Your task to perform on an android device: uninstall "PUBG MOBILE" Image 0: 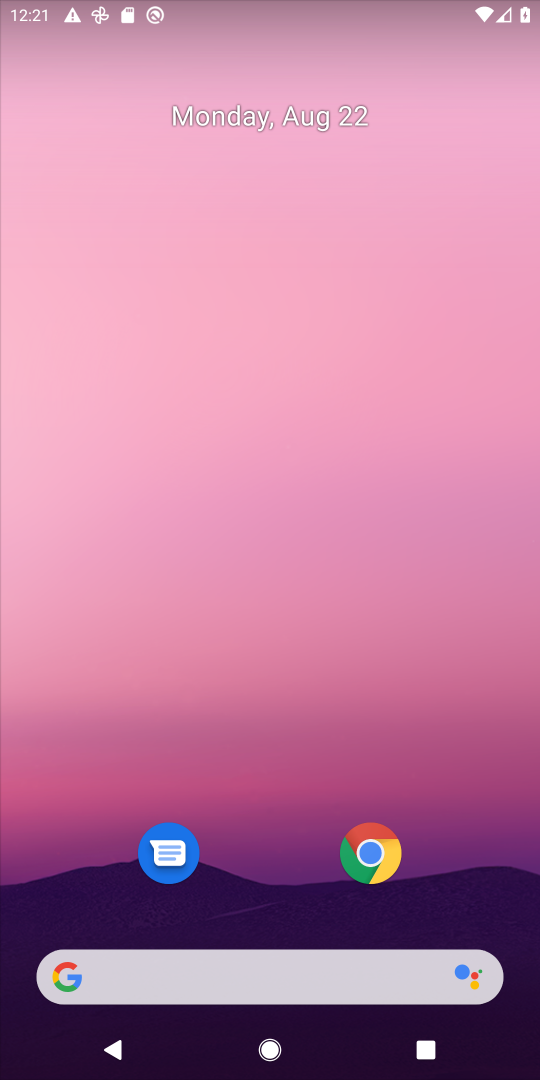
Step 0: drag from (314, 918) to (325, 300)
Your task to perform on an android device: uninstall "PUBG MOBILE" Image 1: 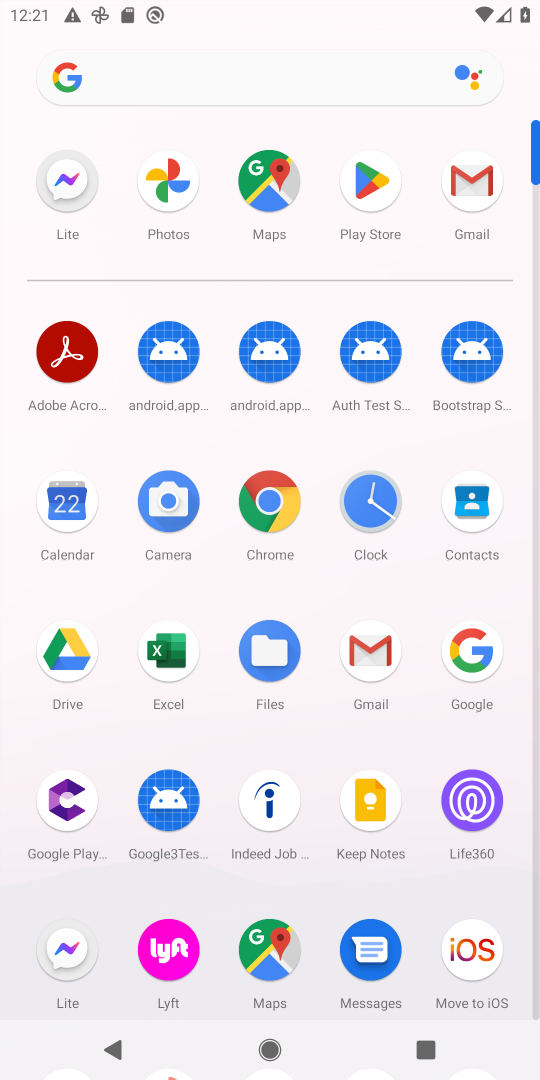
Step 1: click (361, 187)
Your task to perform on an android device: uninstall "PUBG MOBILE" Image 2: 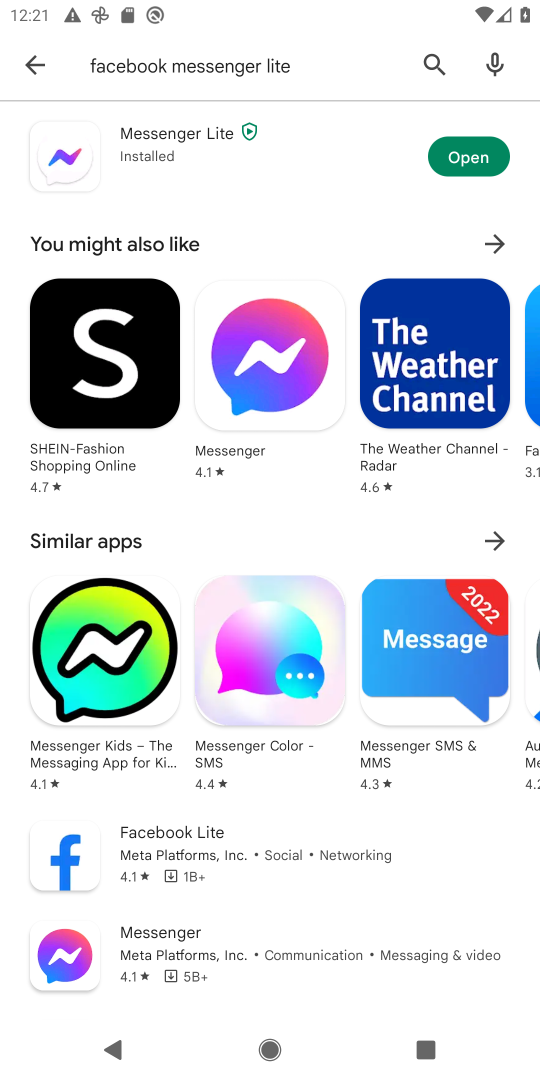
Step 2: click (47, 71)
Your task to perform on an android device: uninstall "PUBG MOBILE" Image 3: 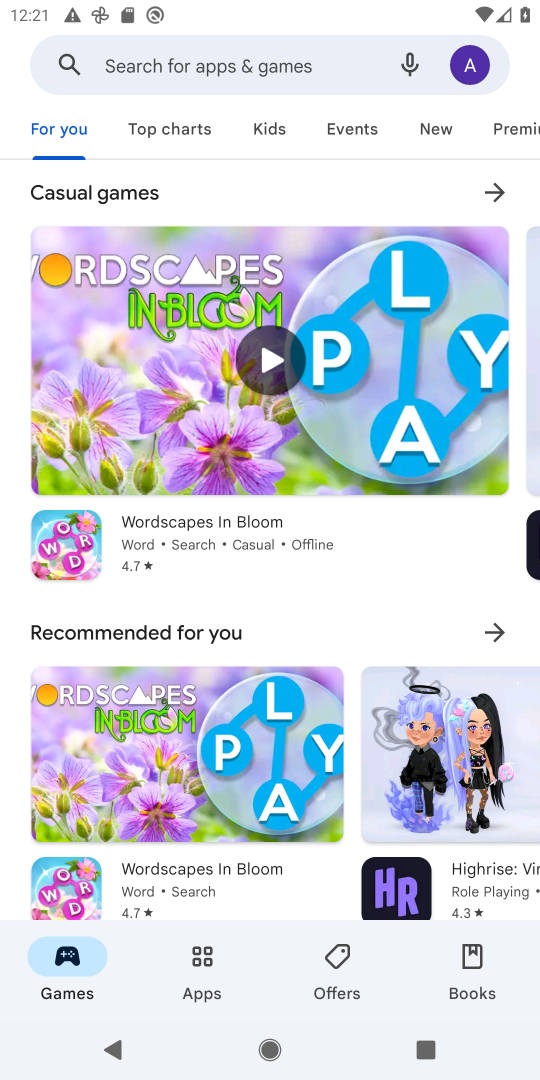
Step 3: click (246, 60)
Your task to perform on an android device: uninstall "PUBG MOBILE" Image 4: 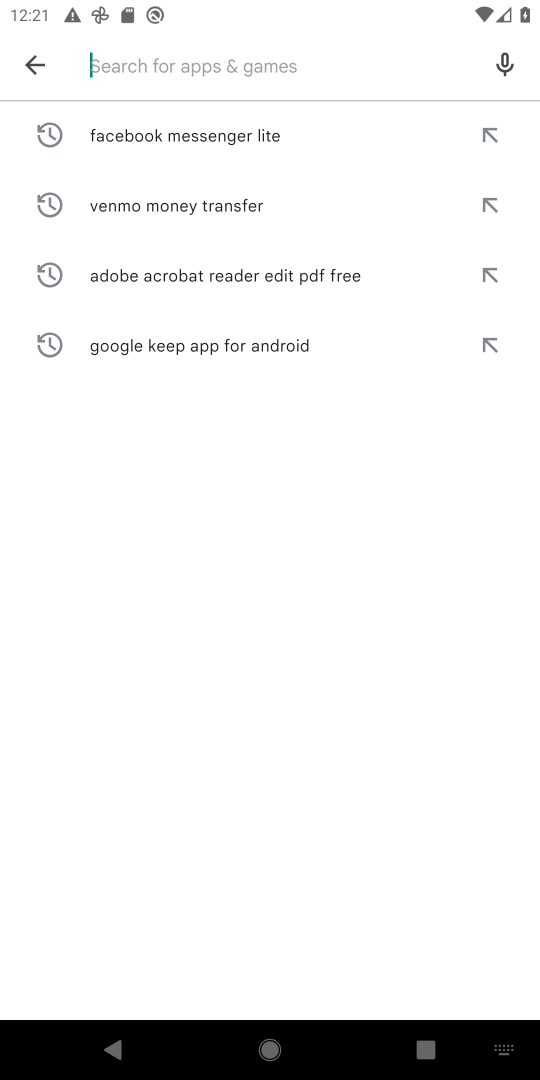
Step 4: type "PUBG MOBILE "
Your task to perform on an android device: uninstall "PUBG MOBILE" Image 5: 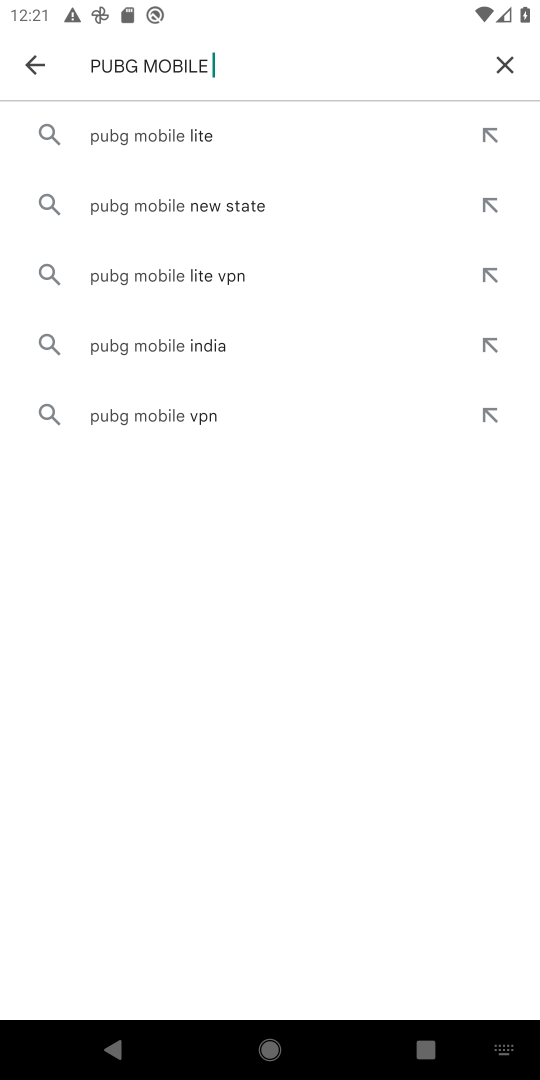
Step 5: click (176, 150)
Your task to perform on an android device: uninstall "PUBG MOBILE" Image 6: 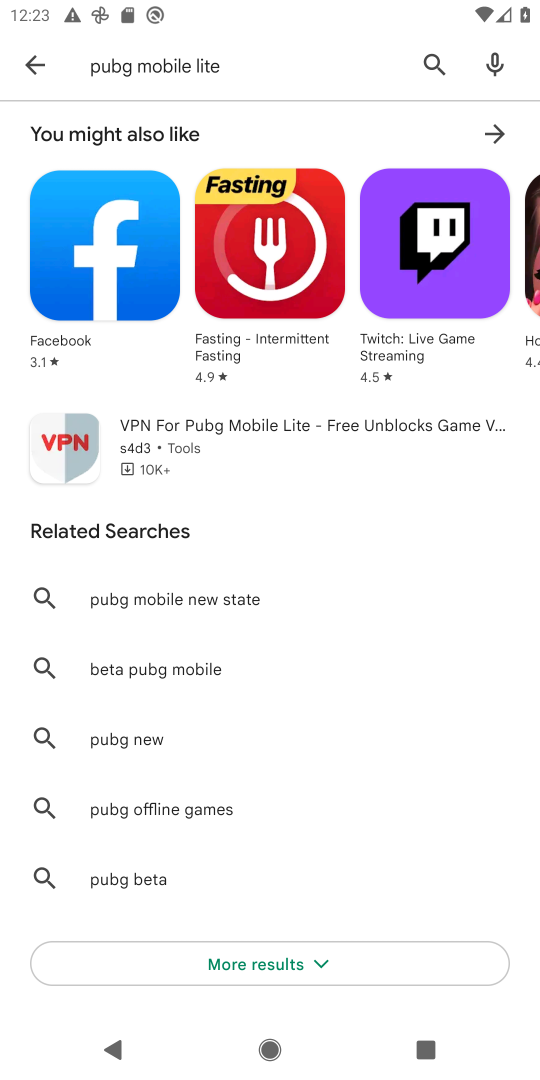
Step 6: task complete